Your task to perform on an android device: Go to Yahoo.com Image 0: 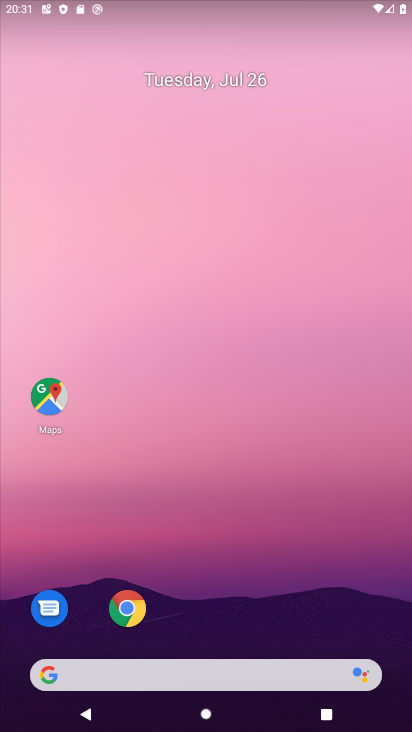
Step 0: click (93, 670)
Your task to perform on an android device: Go to Yahoo.com Image 1: 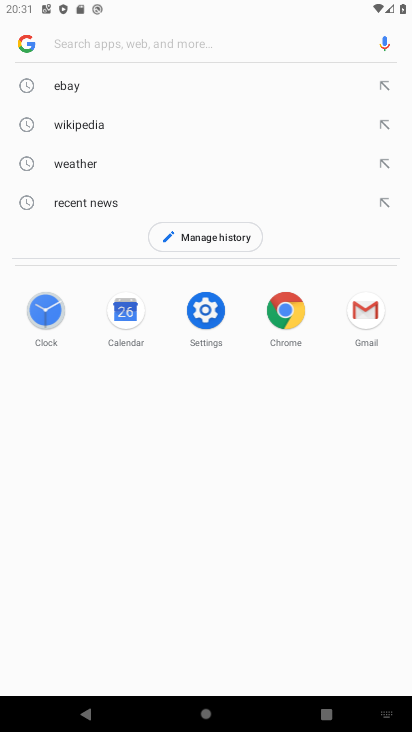
Step 1: type "Yahoo.com"
Your task to perform on an android device: Go to Yahoo.com Image 2: 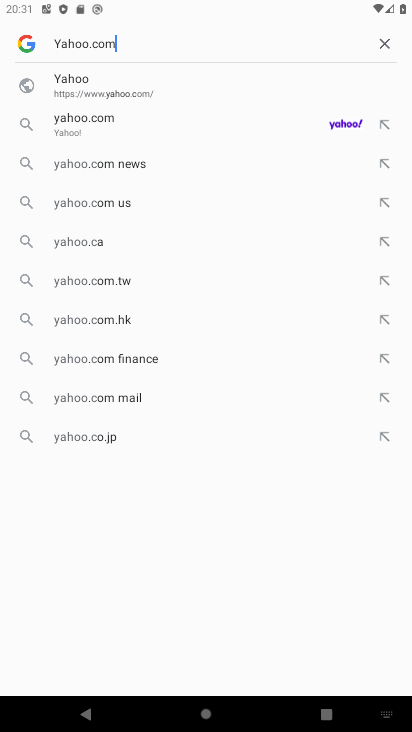
Step 2: type ""
Your task to perform on an android device: Go to Yahoo.com Image 3: 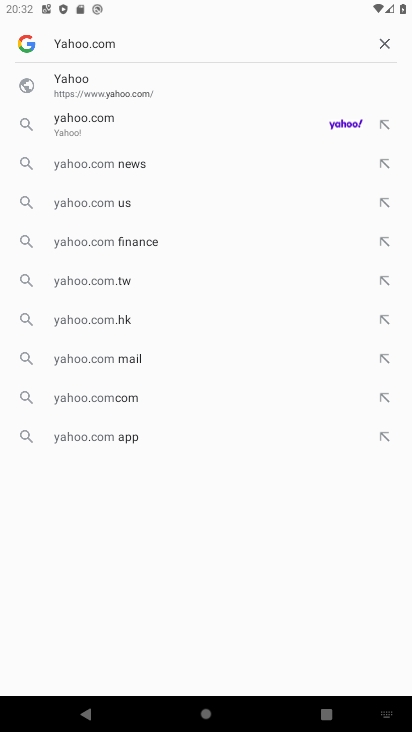
Step 3: click (102, 122)
Your task to perform on an android device: Go to Yahoo.com Image 4: 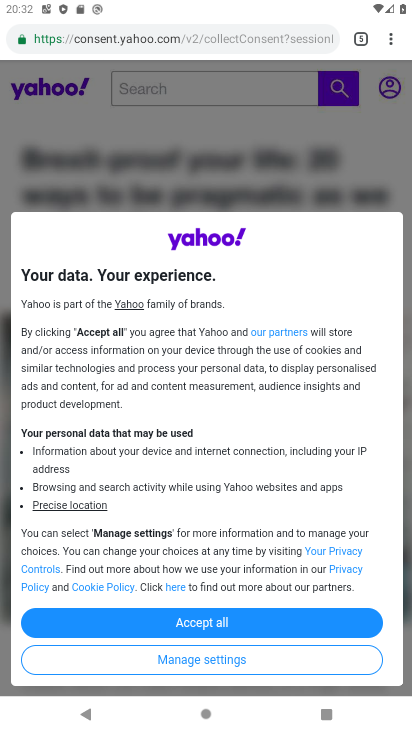
Step 4: task complete